Your task to perform on an android device: turn off translation in the chrome app Image 0: 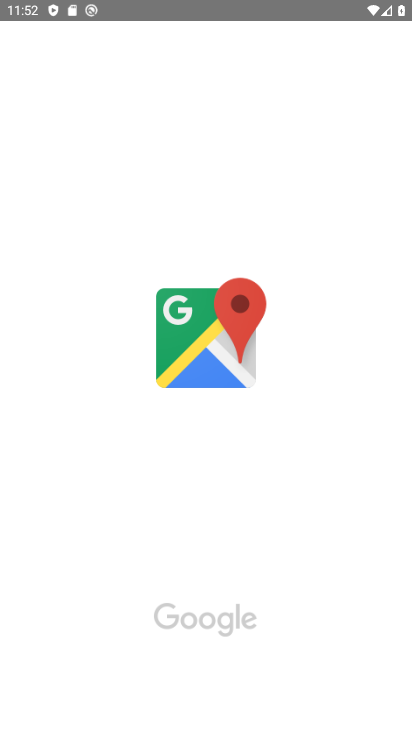
Step 0: press home button
Your task to perform on an android device: turn off translation in the chrome app Image 1: 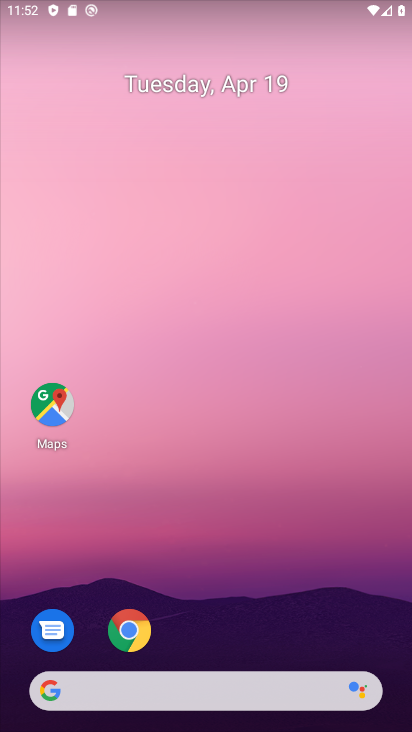
Step 1: drag from (135, 637) to (243, 172)
Your task to perform on an android device: turn off translation in the chrome app Image 2: 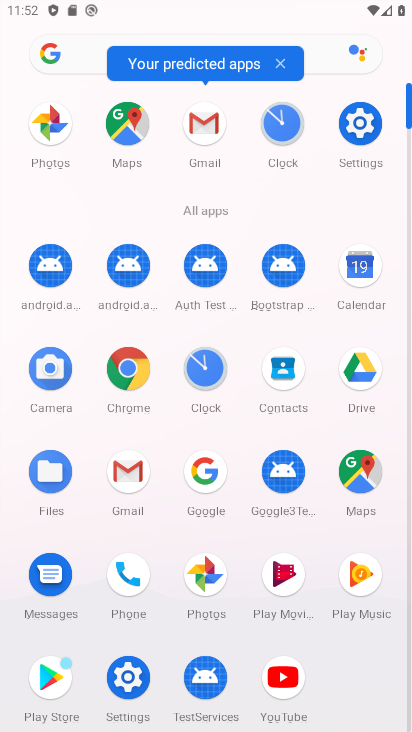
Step 2: click (128, 382)
Your task to perform on an android device: turn off translation in the chrome app Image 3: 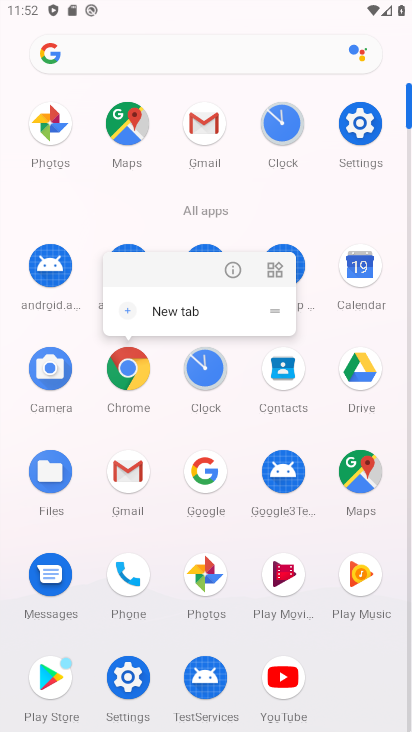
Step 3: click (131, 375)
Your task to perform on an android device: turn off translation in the chrome app Image 4: 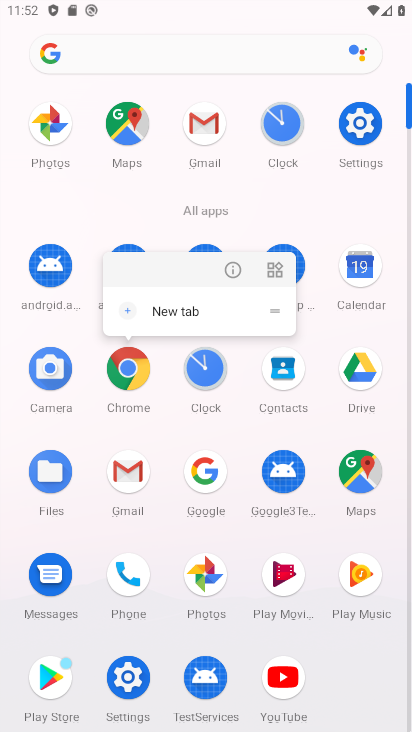
Step 4: click (126, 374)
Your task to perform on an android device: turn off translation in the chrome app Image 5: 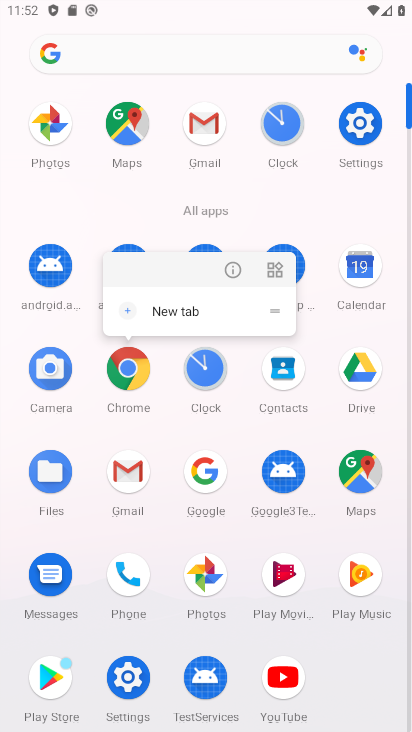
Step 5: click (128, 382)
Your task to perform on an android device: turn off translation in the chrome app Image 6: 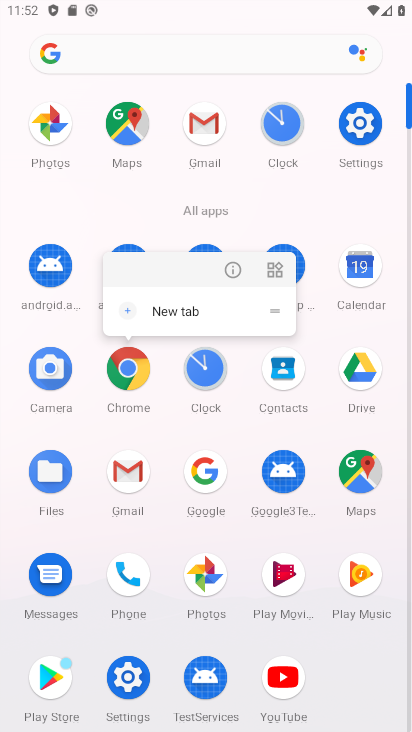
Step 6: click (127, 374)
Your task to perform on an android device: turn off translation in the chrome app Image 7: 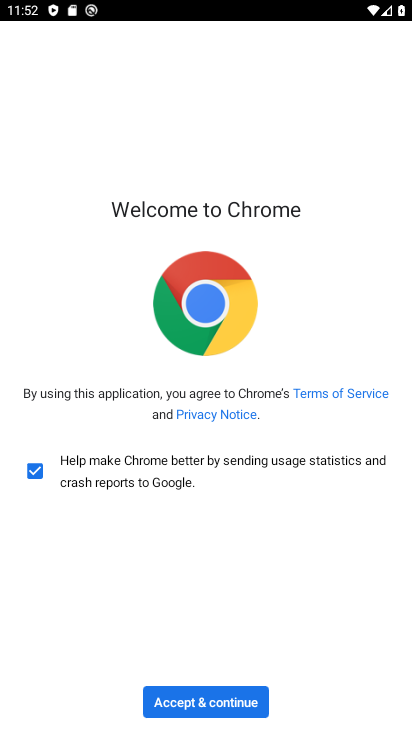
Step 7: click (210, 698)
Your task to perform on an android device: turn off translation in the chrome app Image 8: 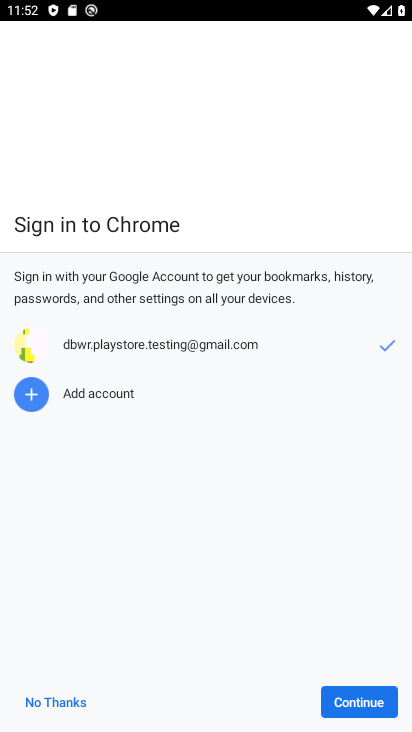
Step 8: click (362, 695)
Your task to perform on an android device: turn off translation in the chrome app Image 9: 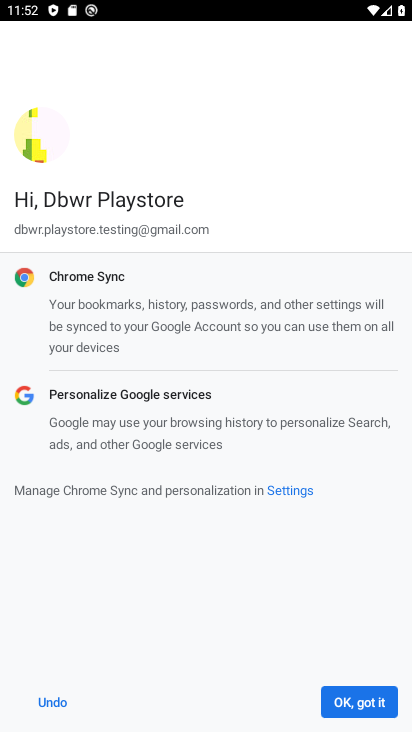
Step 9: click (358, 703)
Your task to perform on an android device: turn off translation in the chrome app Image 10: 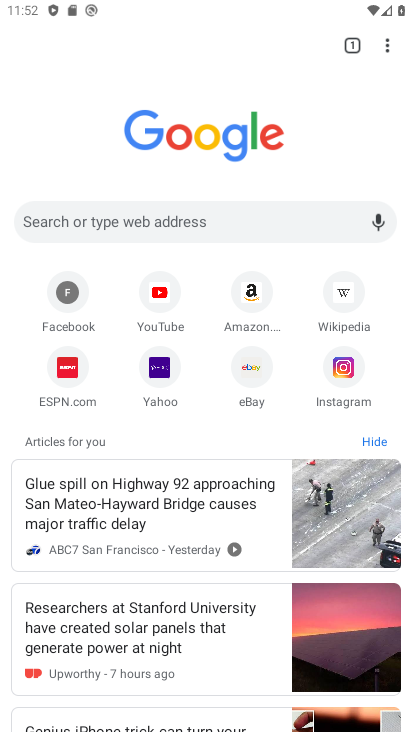
Step 10: click (385, 47)
Your task to perform on an android device: turn off translation in the chrome app Image 11: 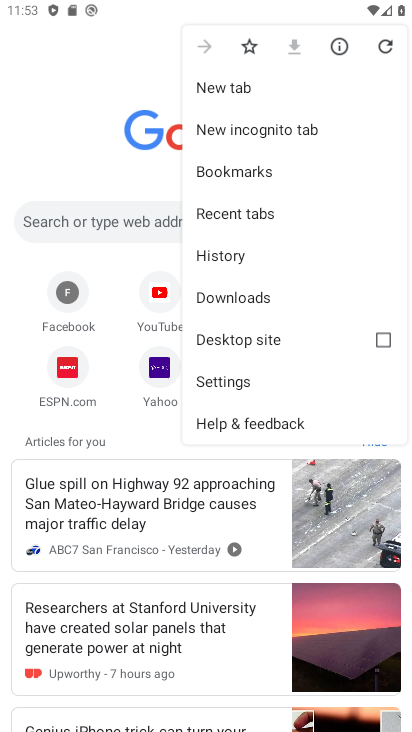
Step 11: click (208, 379)
Your task to perform on an android device: turn off translation in the chrome app Image 12: 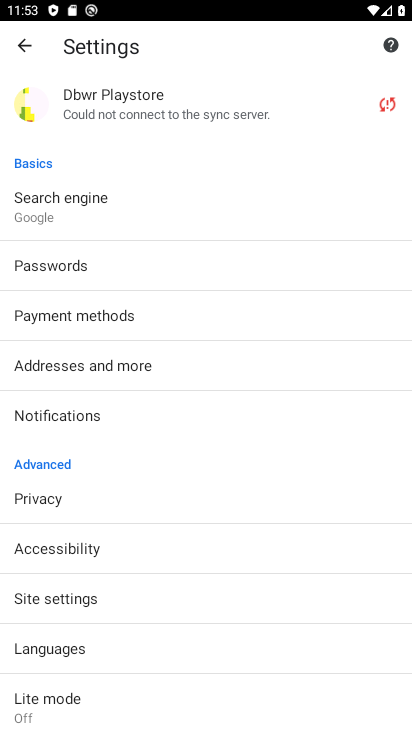
Step 12: click (64, 647)
Your task to perform on an android device: turn off translation in the chrome app Image 13: 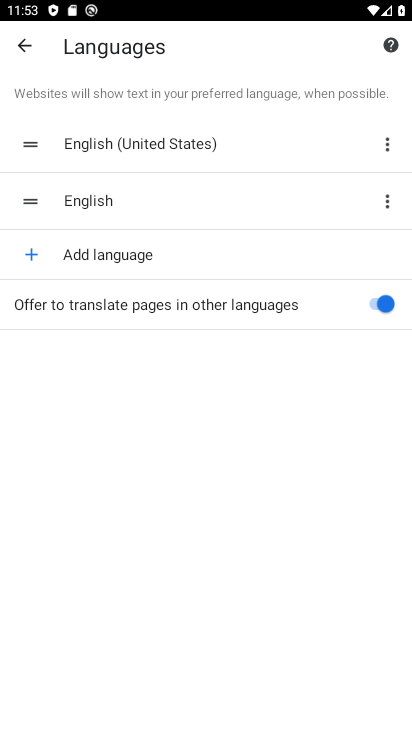
Step 13: click (374, 300)
Your task to perform on an android device: turn off translation in the chrome app Image 14: 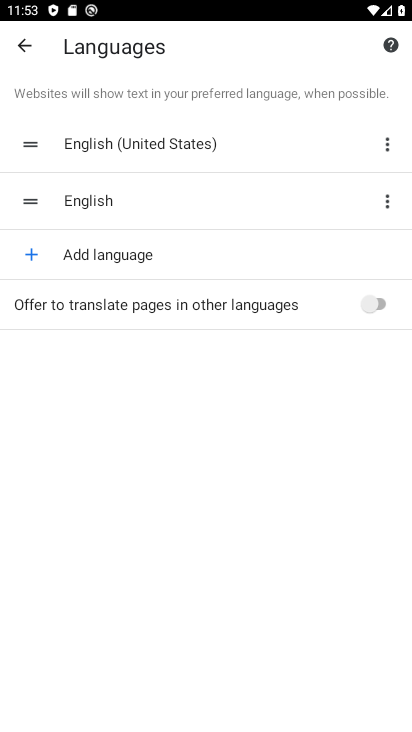
Step 14: task complete